Your task to perform on an android device: Search for dell xps on amazon, select the first entry, add it to the cart, then select checkout. Image 0: 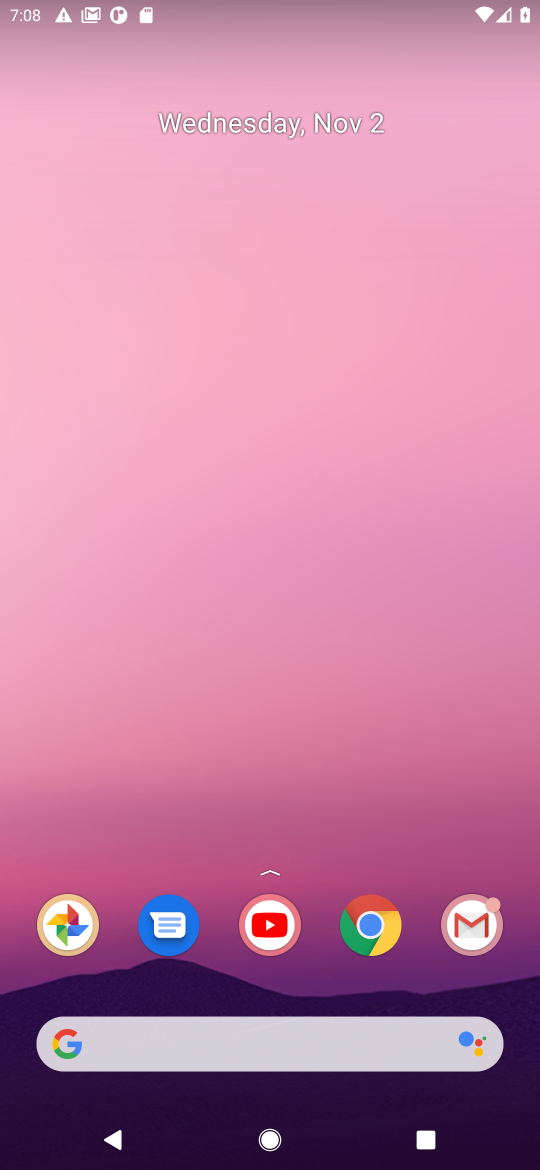
Step 0: press home button
Your task to perform on an android device: Search for dell xps on amazon, select the first entry, add it to the cart, then select checkout. Image 1: 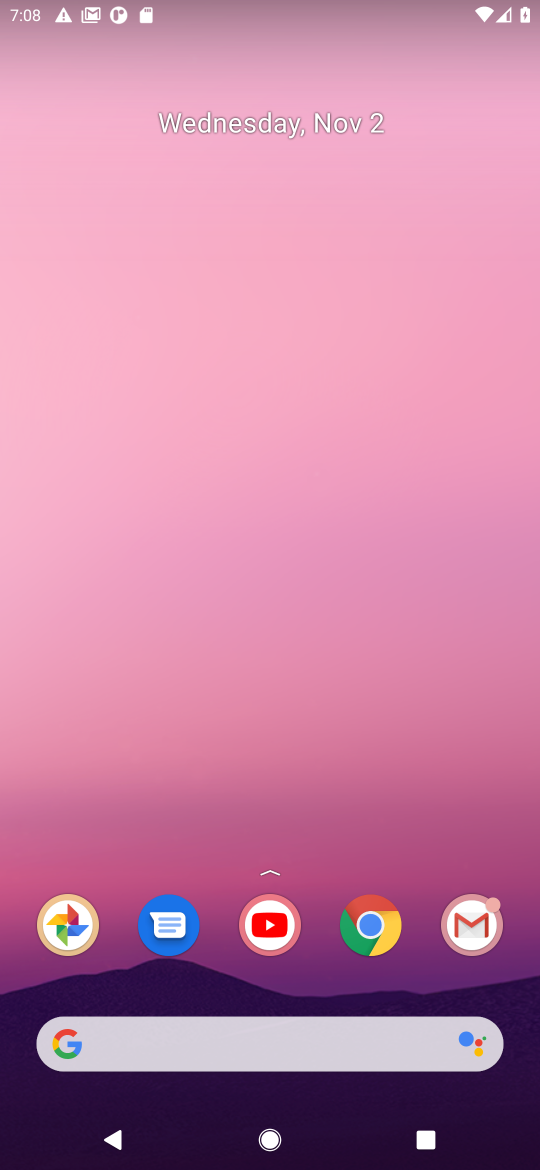
Step 1: click (114, 1036)
Your task to perform on an android device: Search for dell xps on amazon, select the first entry, add it to the cart, then select checkout. Image 2: 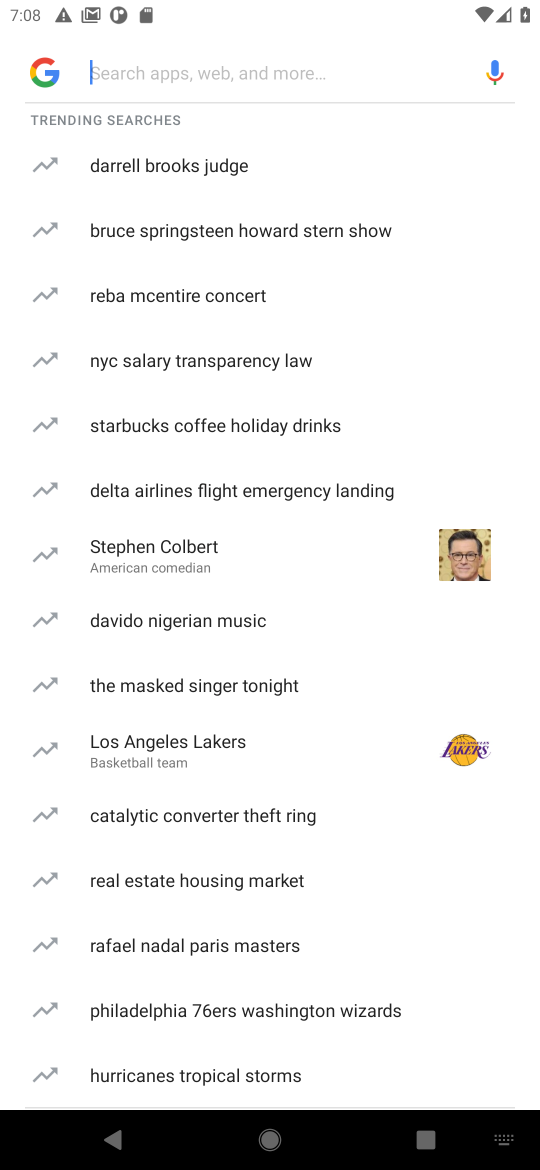
Step 2: type "amazon"
Your task to perform on an android device: Search for dell xps on amazon, select the first entry, add it to the cart, then select checkout. Image 3: 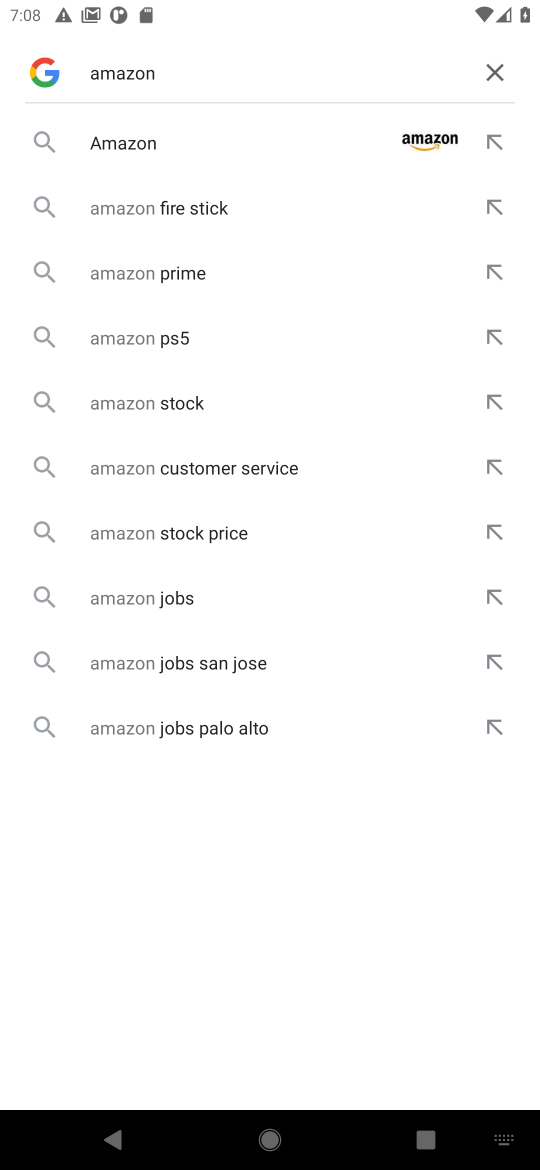
Step 3: press enter
Your task to perform on an android device: Search for dell xps on amazon, select the first entry, add it to the cart, then select checkout. Image 4: 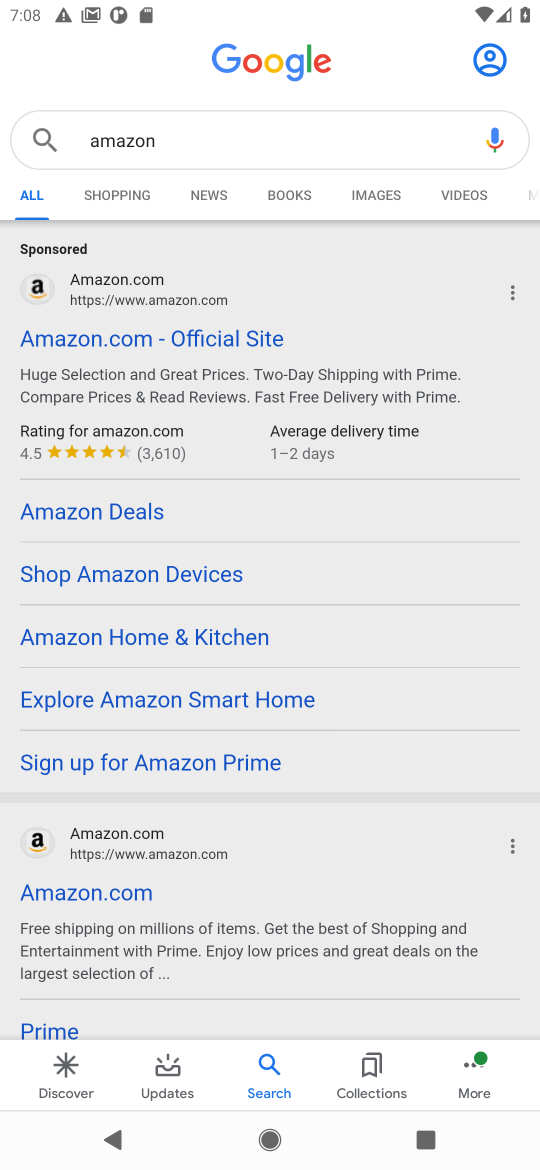
Step 4: click (100, 330)
Your task to perform on an android device: Search for dell xps on amazon, select the first entry, add it to the cart, then select checkout. Image 5: 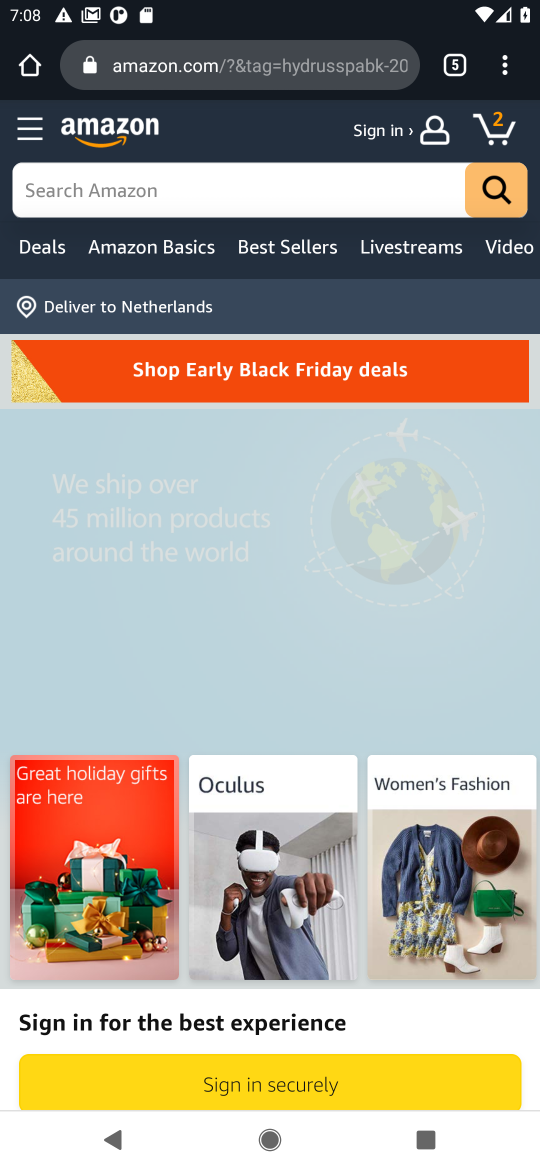
Step 5: click (158, 181)
Your task to perform on an android device: Search for dell xps on amazon, select the first entry, add it to the cart, then select checkout. Image 6: 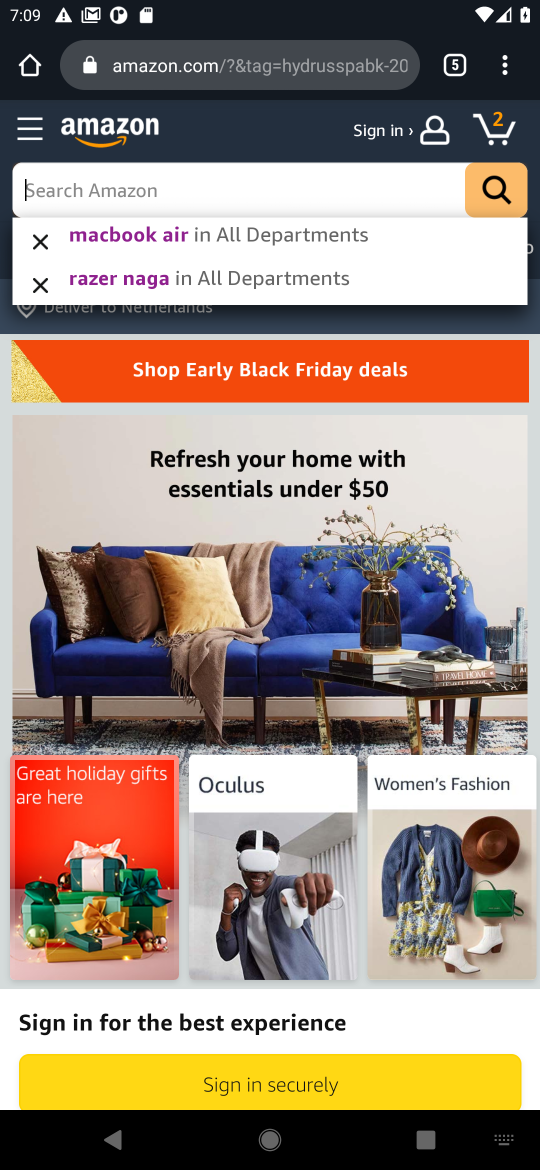
Step 6: type "dell xps"
Your task to perform on an android device: Search for dell xps on amazon, select the first entry, add it to the cart, then select checkout. Image 7: 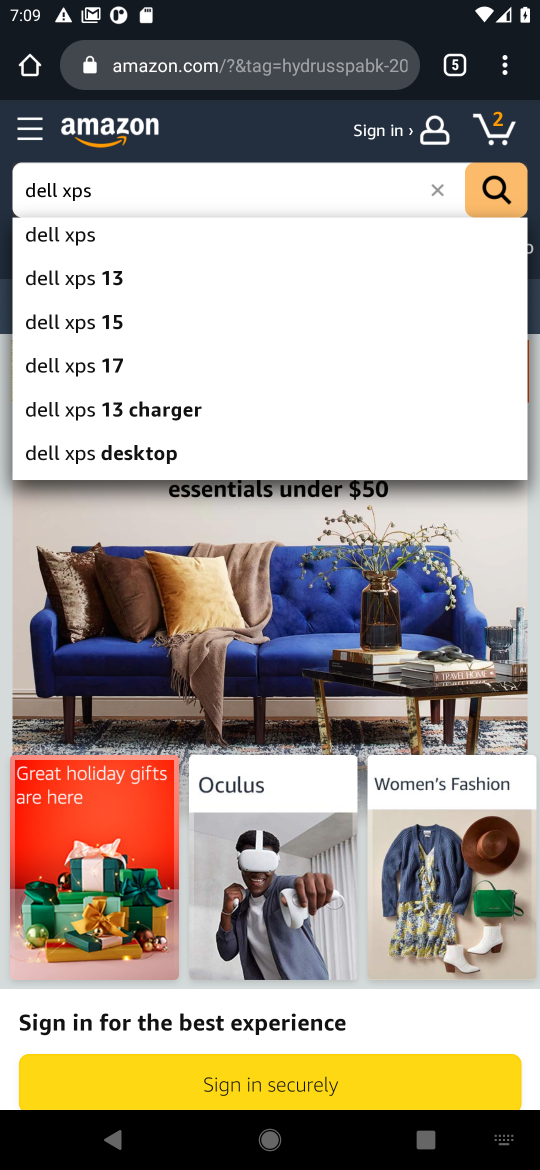
Step 7: click (490, 192)
Your task to perform on an android device: Search for dell xps on amazon, select the first entry, add it to the cart, then select checkout. Image 8: 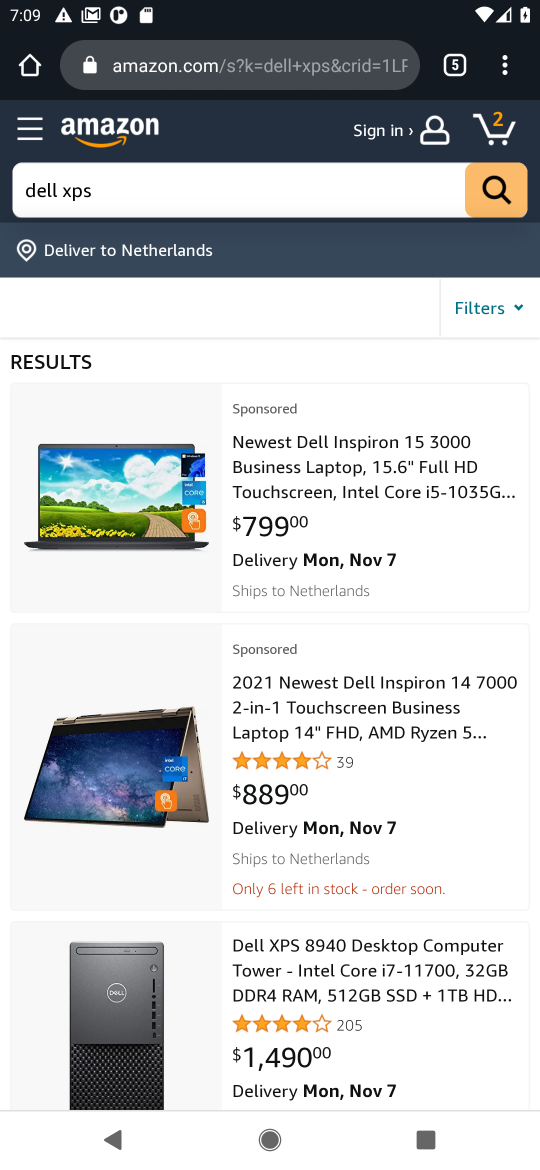
Step 8: drag from (393, 1006) to (409, 610)
Your task to perform on an android device: Search for dell xps on amazon, select the first entry, add it to the cart, then select checkout. Image 9: 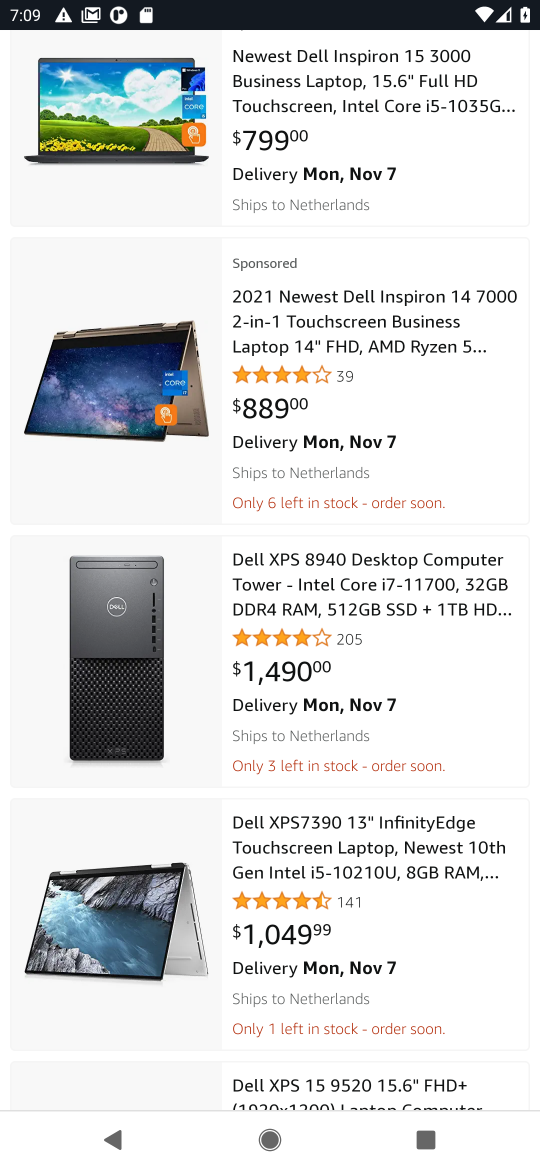
Step 9: click (356, 856)
Your task to perform on an android device: Search for dell xps on amazon, select the first entry, add it to the cart, then select checkout. Image 10: 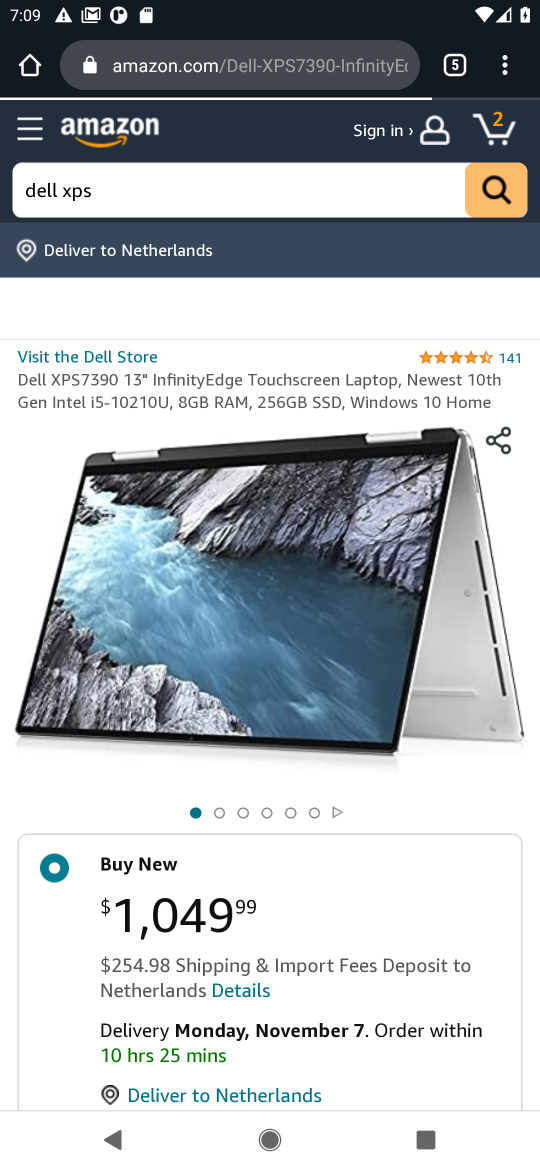
Step 10: drag from (369, 930) to (382, 568)
Your task to perform on an android device: Search for dell xps on amazon, select the first entry, add it to the cart, then select checkout. Image 11: 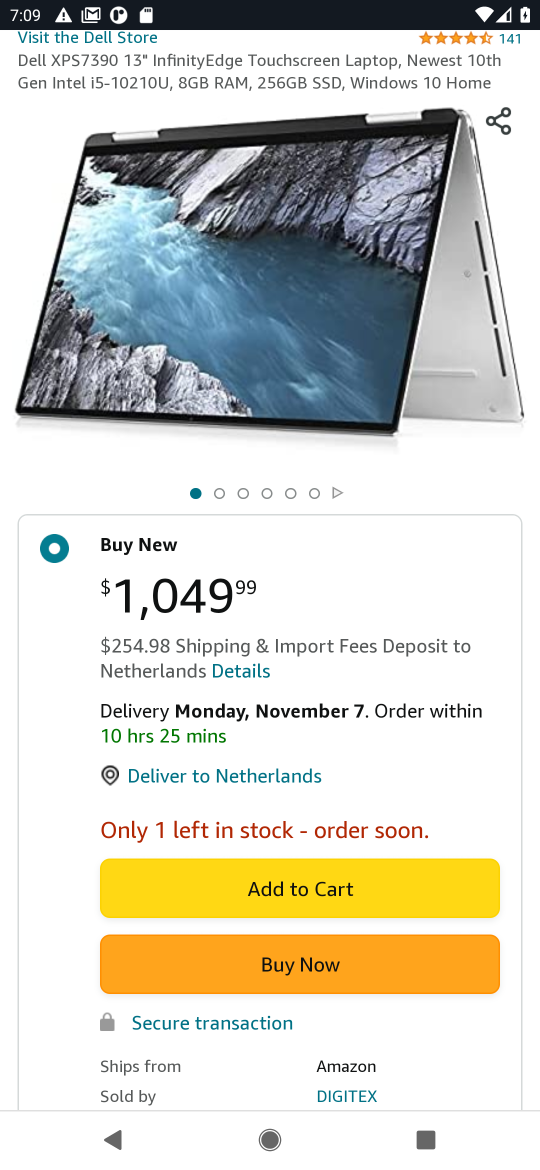
Step 11: drag from (397, 801) to (435, 487)
Your task to perform on an android device: Search for dell xps on amazon, select the first entry, add it to the cart, then select checkout. Image 12: 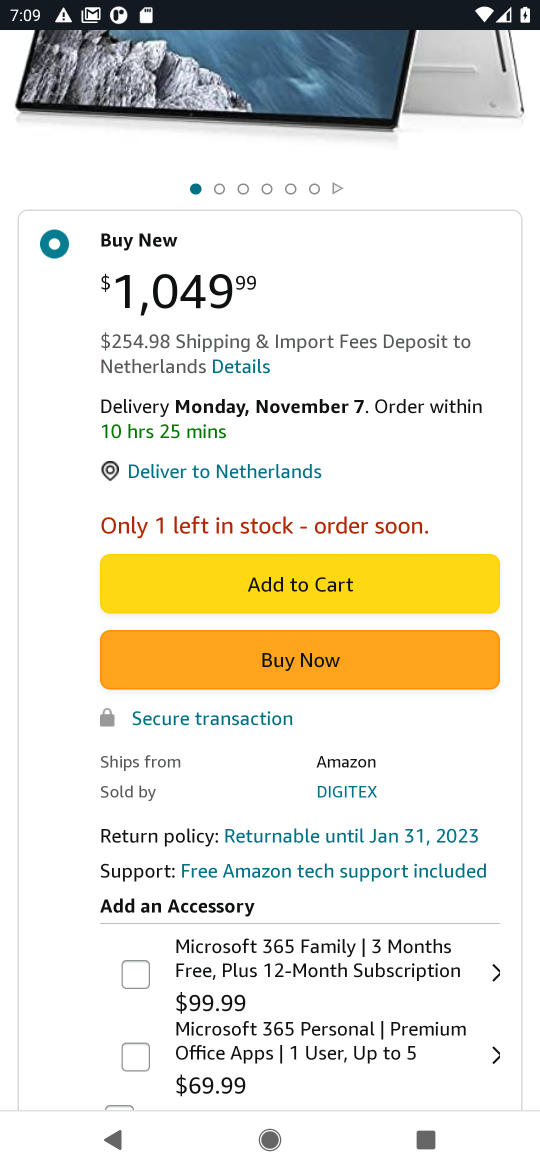
Step 12: click (270, 585)
Your task to perform on an android device: Search for dell xps on amazon, select the first entry, add it to the cart, then select checkout. Image 13: 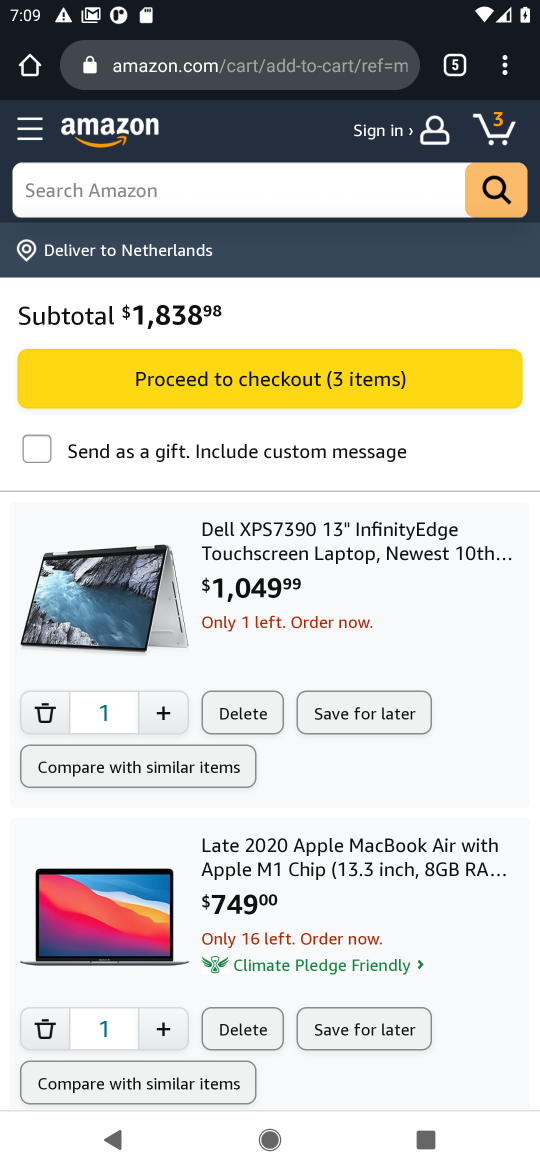
Step 13: click (306, 375)
Your task to perform on an android device: Search for dell xps on amazon, select the first entry, add it to the cart, then select checkout. Image 14: 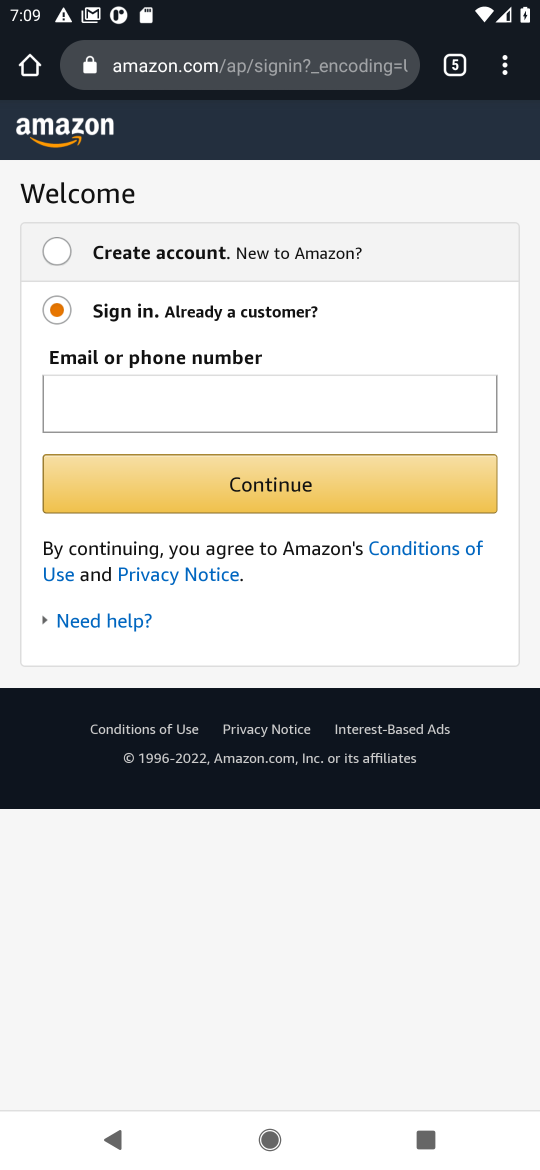
Step 14: task complete